Your task to perform on an android device: Go to Wikipedia Image 0: 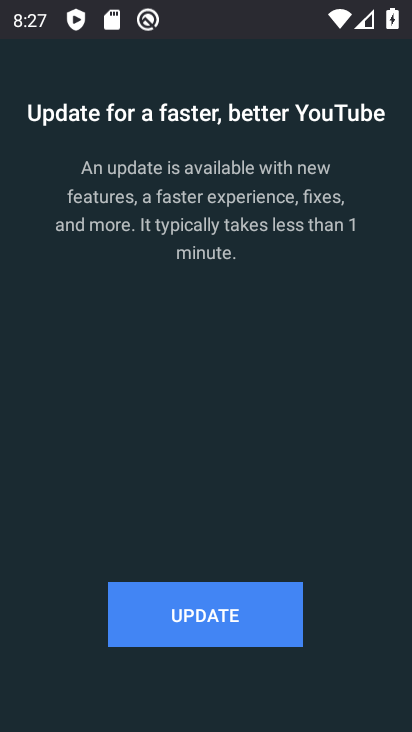
Step 0: press back button
Your task to perform on an android device: Go to Wikipedia Image 1: 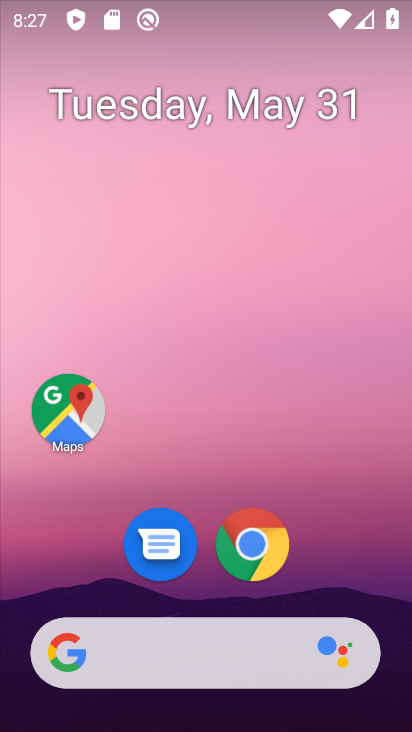
Step 1: click (226, 554)
Your task to perform on an android device: Go to Wikipedia Image 2: 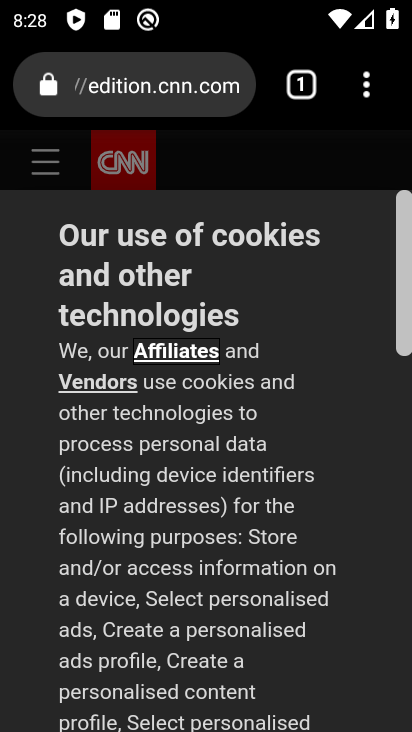
Step 2: click (168, 79)
Your task to perform on an android device: Go to Wikipedia Image 3: 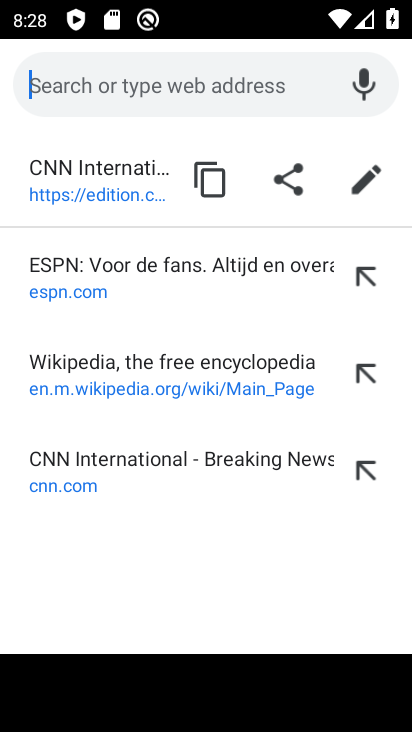
Step 3: click (188, 365)
Your task to perform on an android device: Go to Wikipedia Image 4: 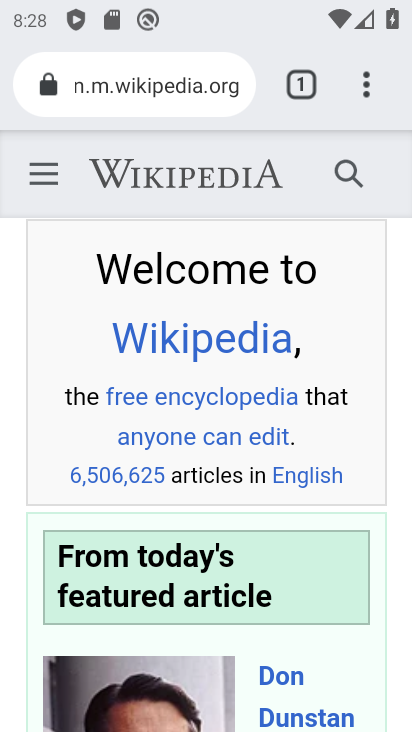
Step 4: task complete